Your task to perform on an android device: set default search engine in the chrome app Image 0: 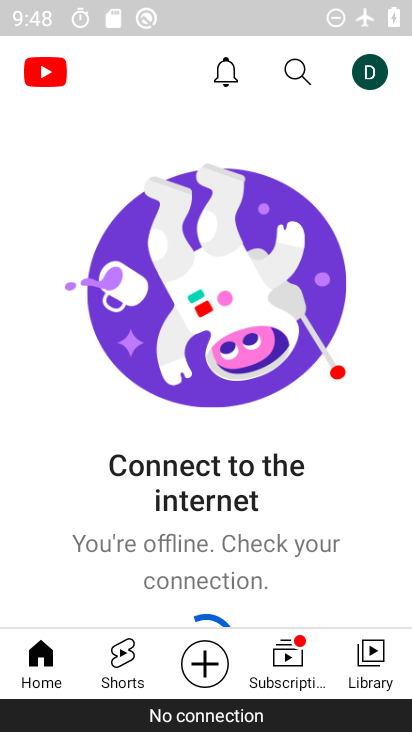
Step 0: press home button
Your task to perform on an android device: set default search engine in the chrome app Image 1: 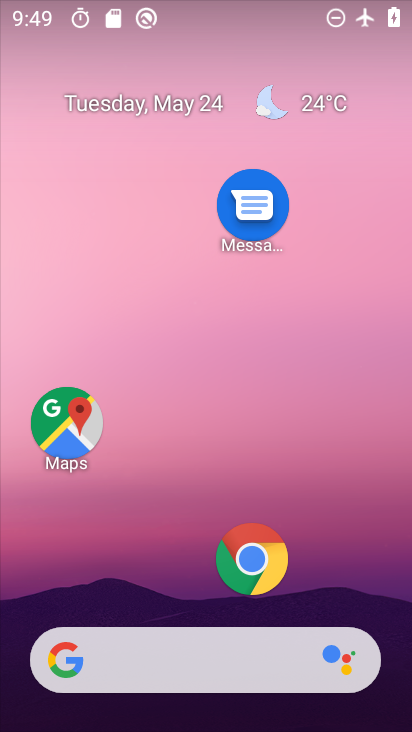
Step 1: click (231, 586)
Your task to perform on an android device: set default search engine in the chrome app Image 2: 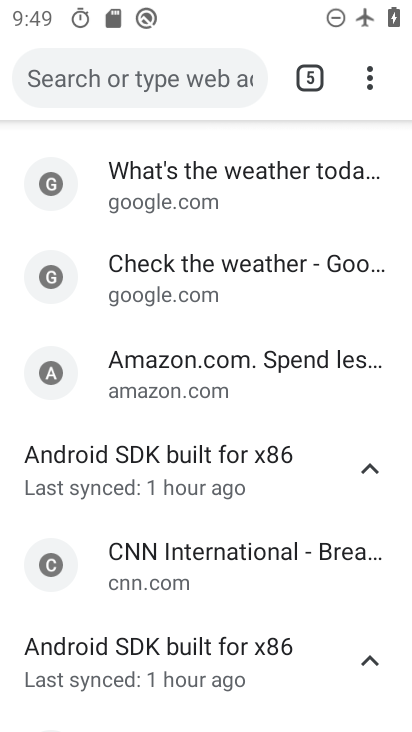
Step 2: drag from (365, 75) to (91, 630)
Your task to perform on an android device: set default search engine in the chrome app Image 3: 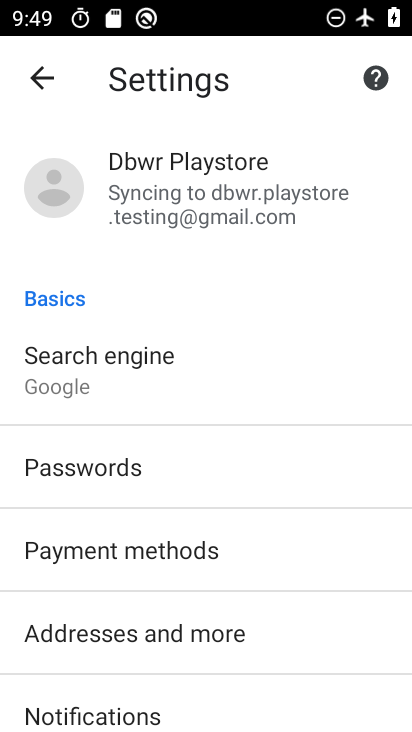
Step 3: click (128, 370)
Your task to perform on an android device: set default search engine in the chrome app Image 4: 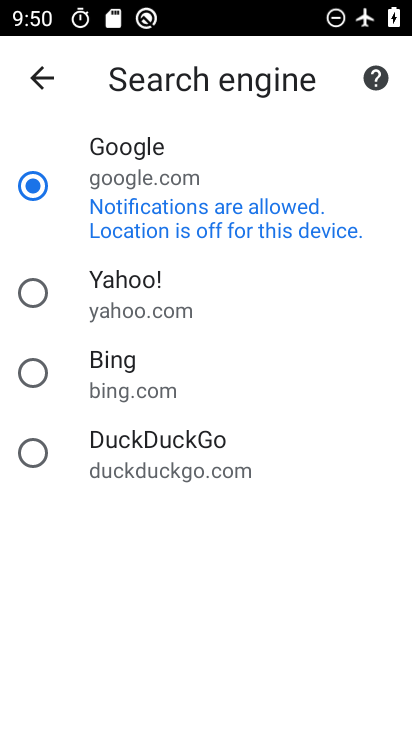
Step 4: click (31, 301)
Your task to perform on an android device: set default search engine in the chrome app Image 5: 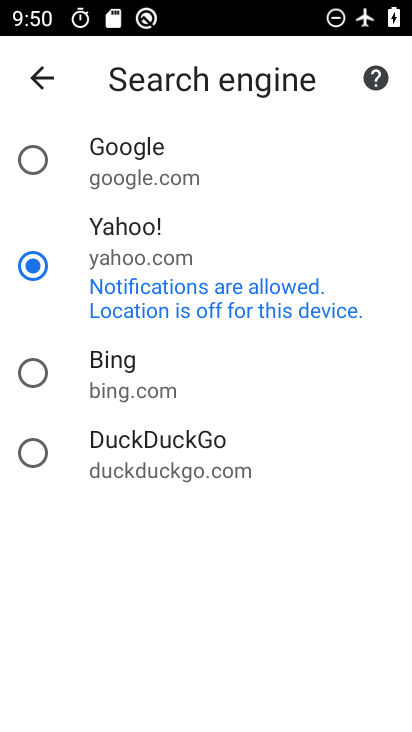
Step 5: task complete